Your task to perform on an android device: Search for hotels in Seattle Image 0: 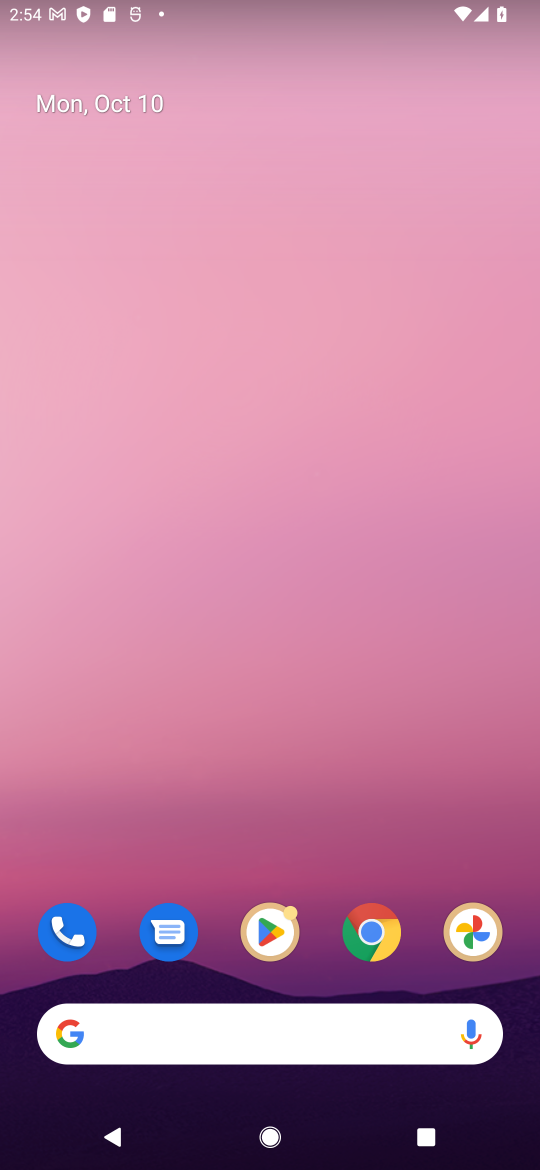
Step 0: press home button
Your task to perform on an android device: Search for hotels in Seattle Image 1: 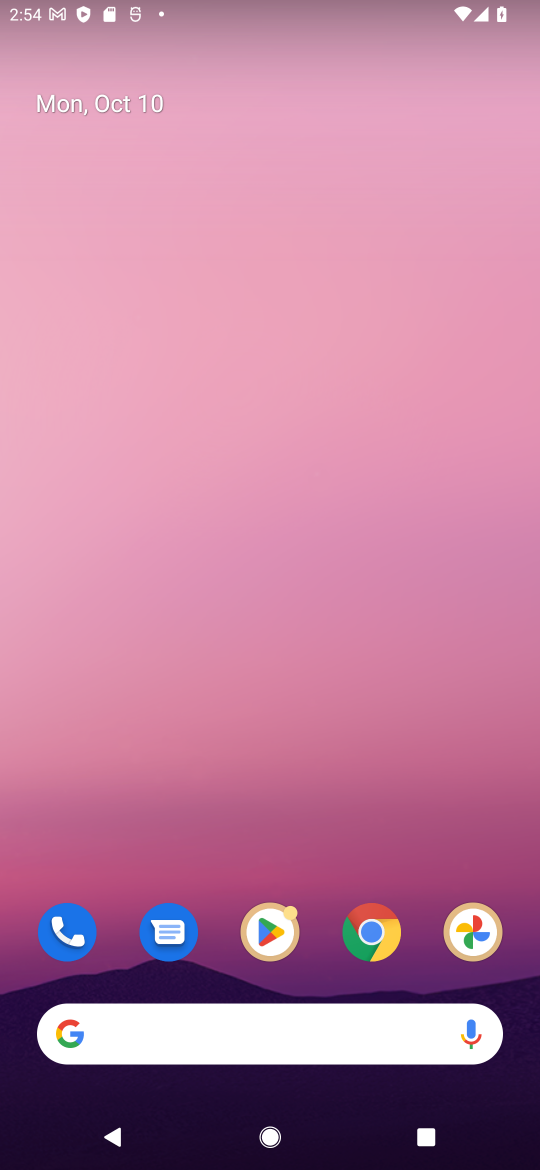
Step 1: click (349, 1039)
Your task to perform on an android device: Search for hotels in Seattle Image 2: 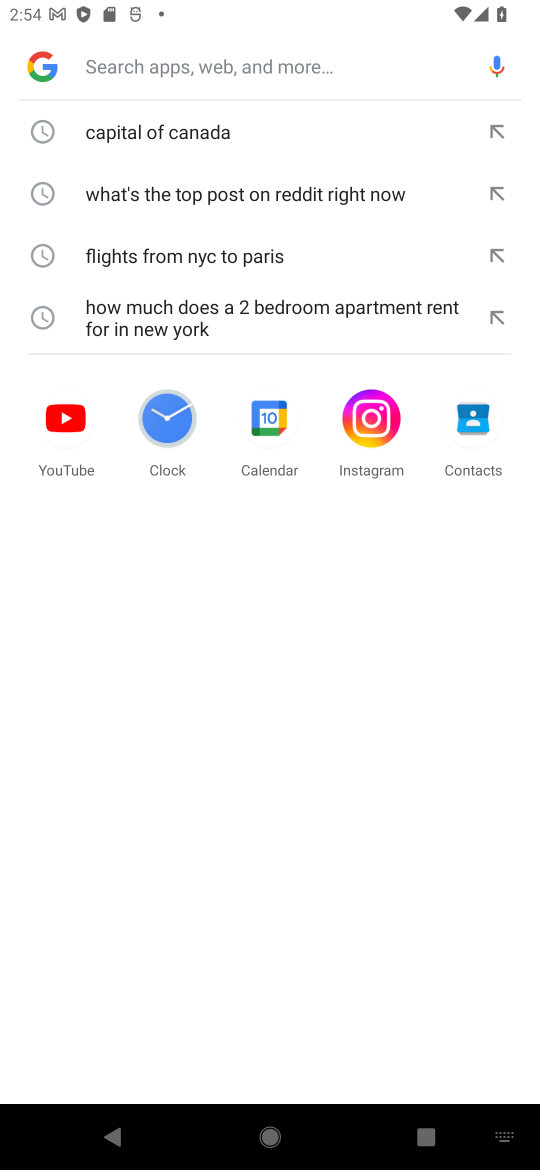
Step 2: type "hotels in seattle"
Your task to perform on an android device: Search for hotels in Seattle Image 3: 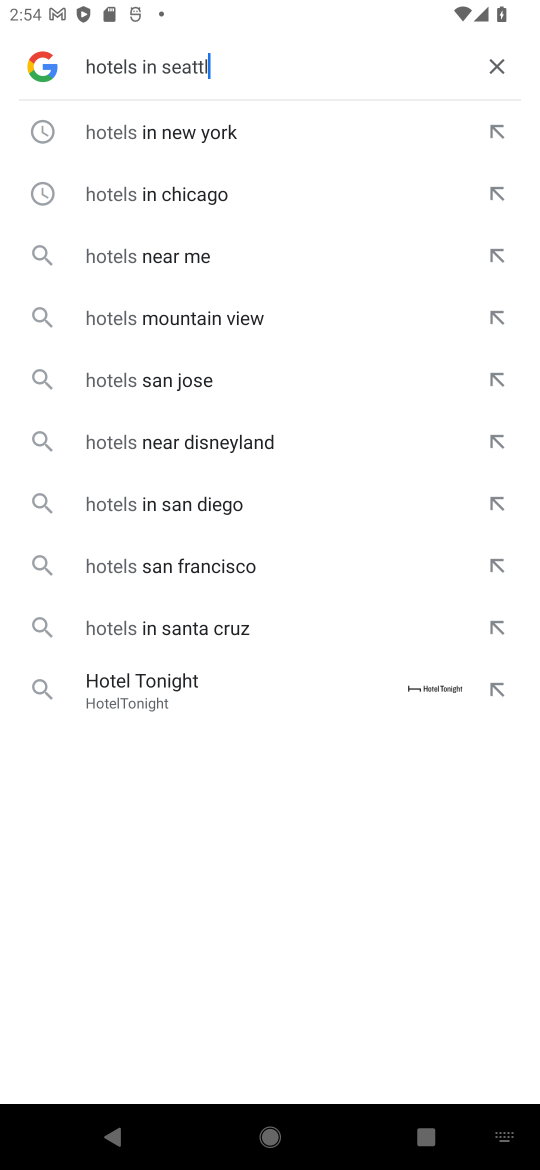
Step 3: press enter
Your task to perform on an android device: Search for hotels in Seattle Image 4: 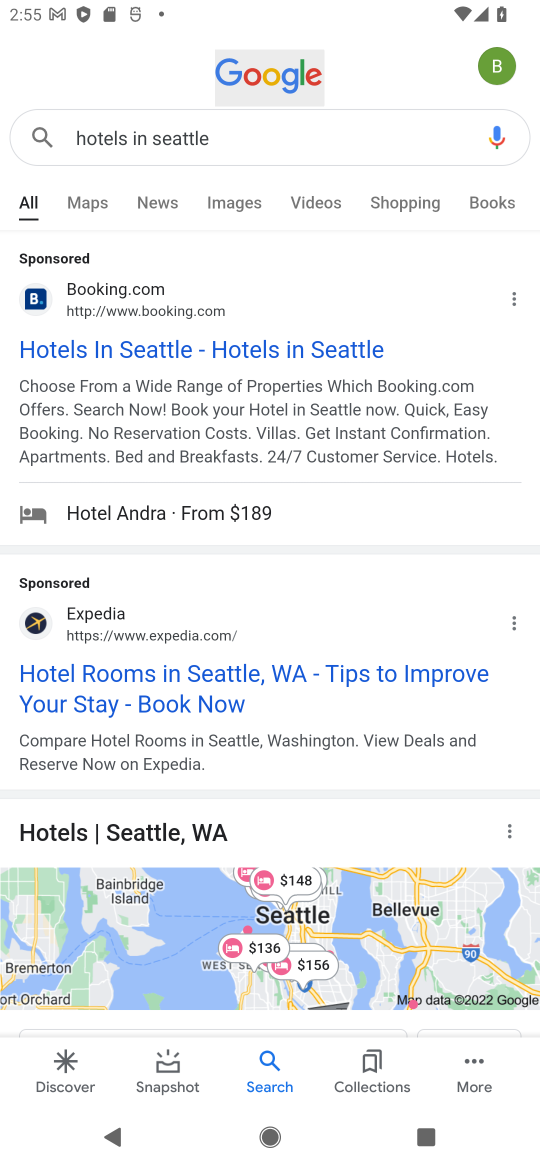
Step 4: click (354, 353)
Your task to perform on an android device: Search for hotels in Seattle Image 5: 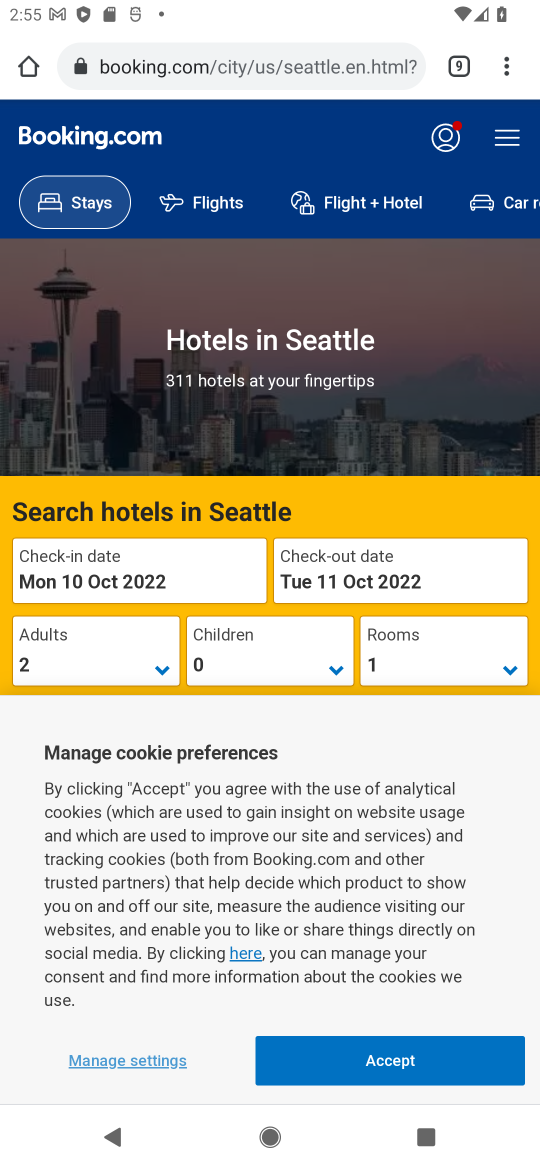
Step 5: click (454, 1060)
Your task to perform on an android device: Search for hotels in Seattle Image 6: 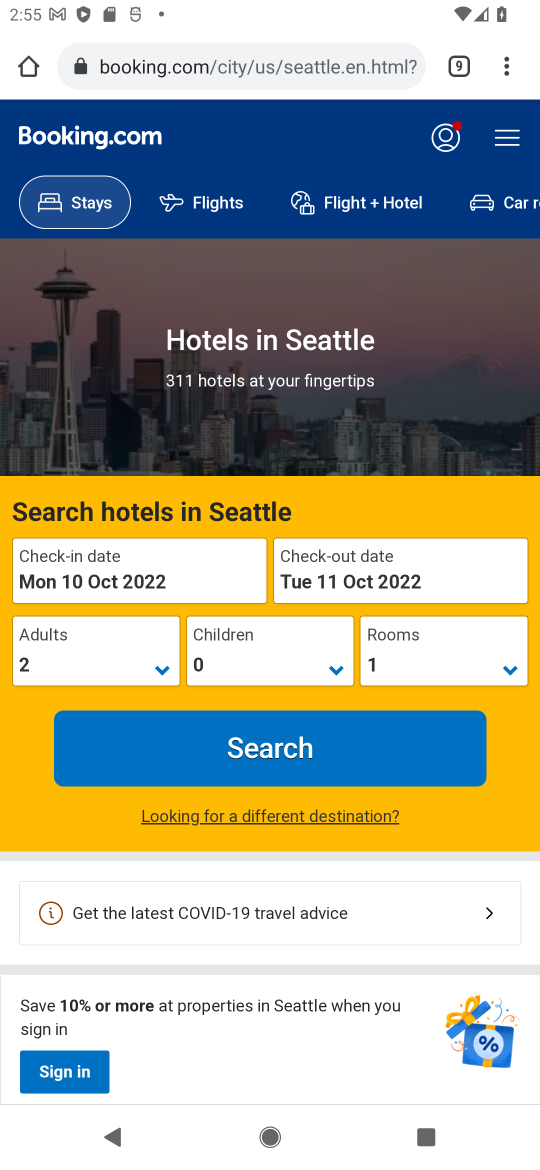
Step 6: task complete